Your task to perform on an android device: Open CNN.com Image 0: 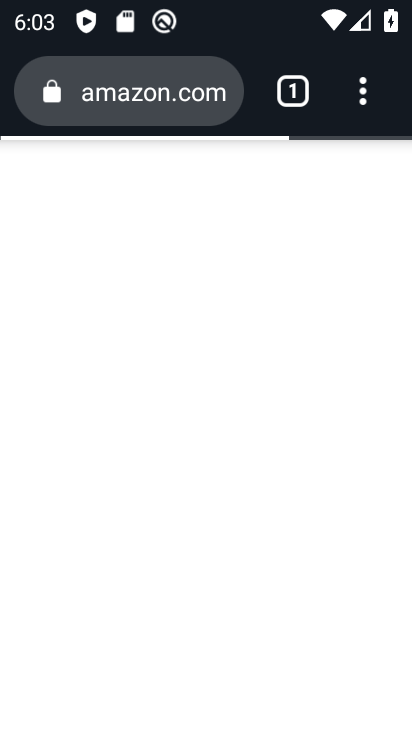
Step 0: press home button
Your task to perform on an android device: Open CNN.com Image 1: 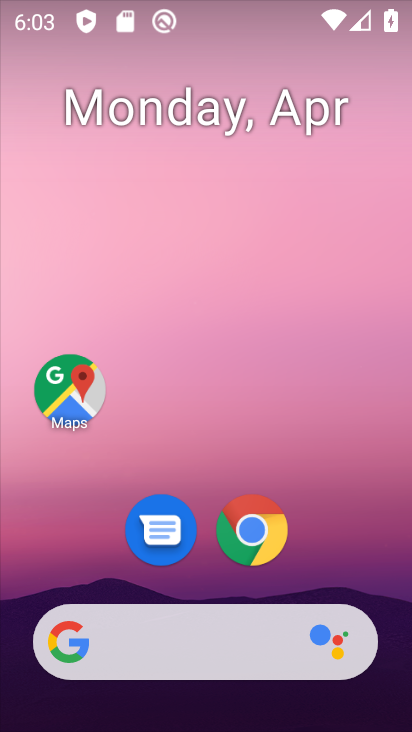
Step 1: click (254, 541)
Your task to perform on an android device: Open CNN.com Image 2: 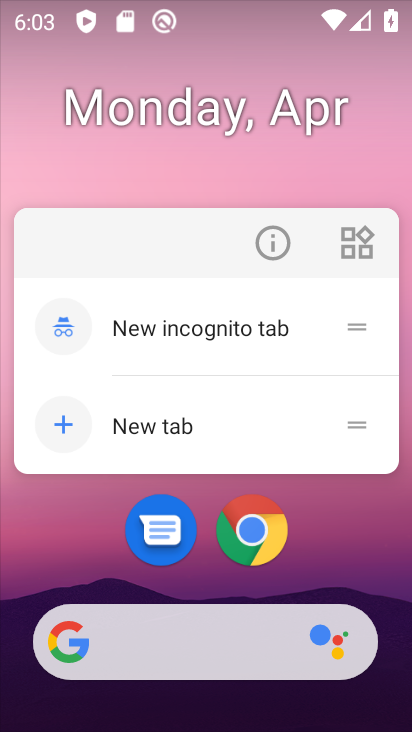
Step 2: click (356, 547)
Your task to perform on an android device: Open CNN.com Image 3: 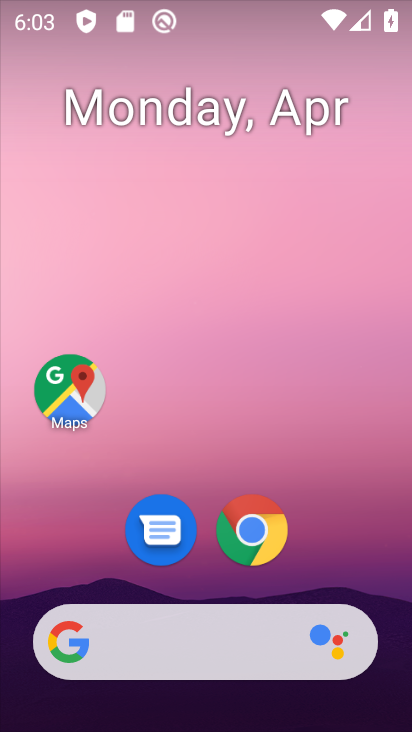
Step 3: drag from (224, 580) to (280, 32)
Your task to perform on an android device: Open CNN.com Image 4: 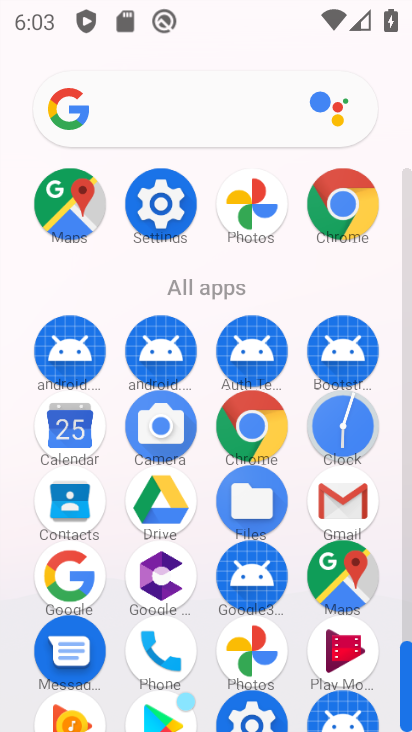
Step 4: click (246, 418)
Your task to perform on an android device: Open CNN.com Image 5: 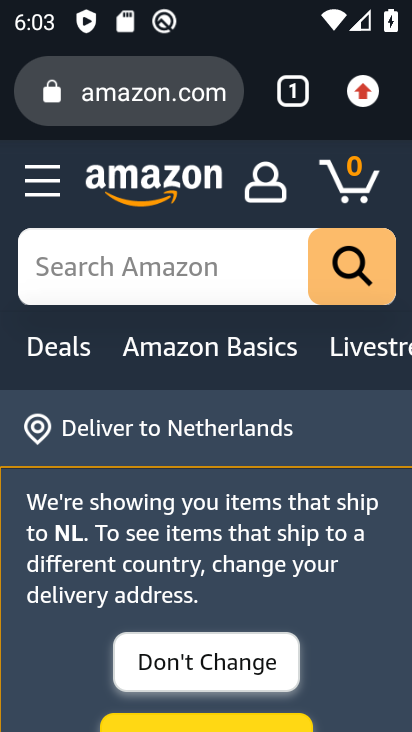
Step 5: click (292, 86)
Your task to perform on an android device: Open CNN.com Image 6: 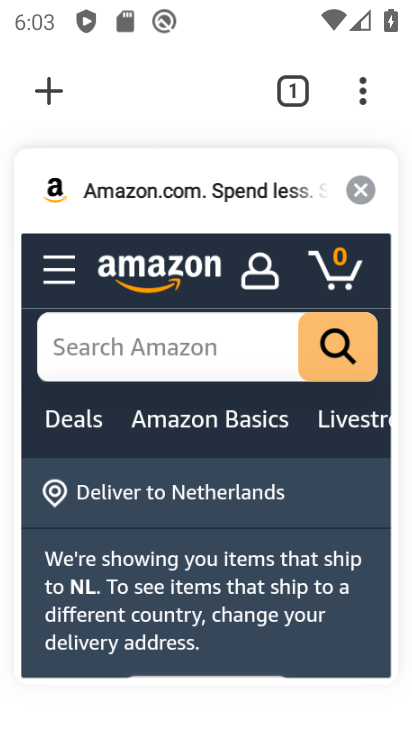
Step 6: click (365, 187)
Your task to perform on an android device: Open CNN.com Image 7: 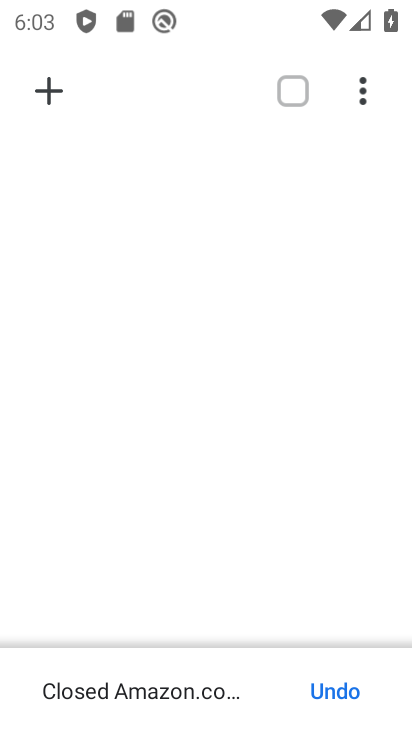
Step 7: click (59, 95)
Your task to perform on an android device: Open CNN.com Image 8: 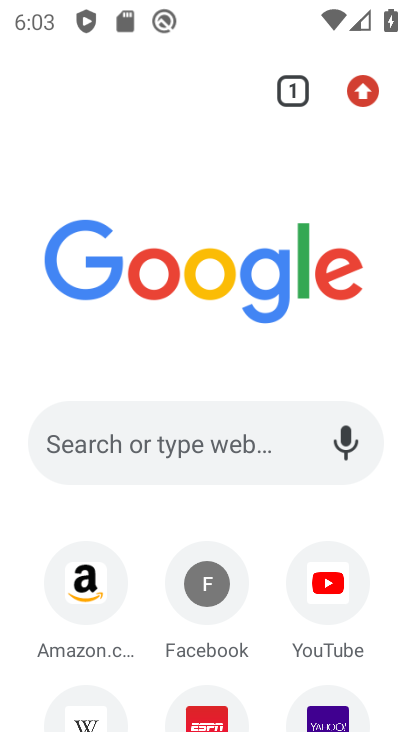
Step 8: click (180, 441)
Your task to perform on an android device: Open CNN.com Image 9: 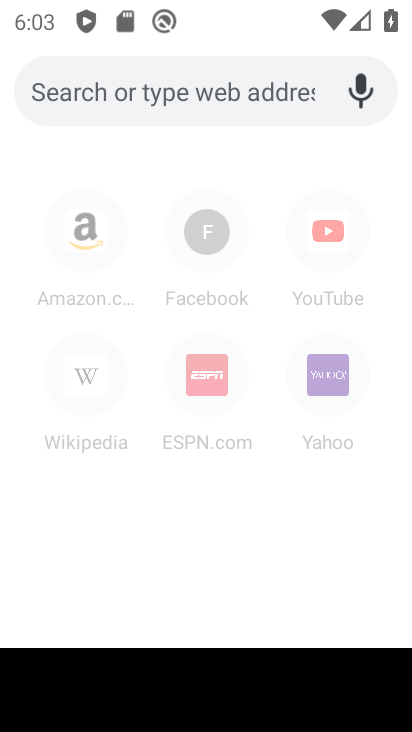
Step 9: type "cnn.com"
Your task to perform on an android device: Open CNN.com Image 10: 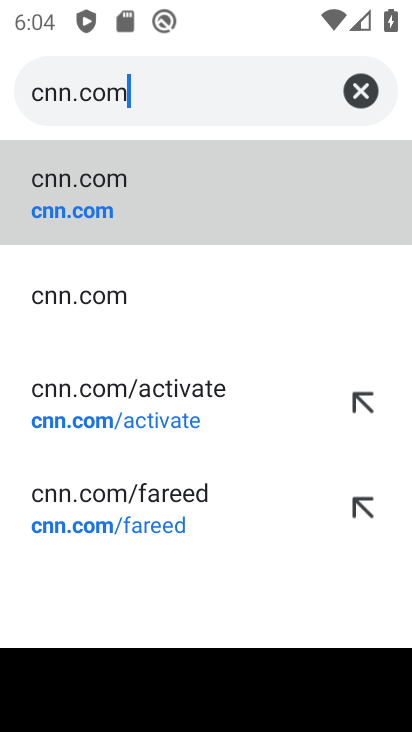
Step 10: click (125, 180)
Your task to perform on an android device: Open CNN.com Image 11: 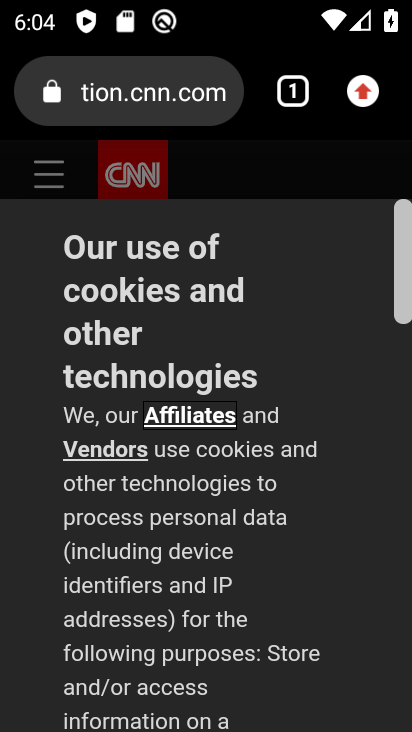
Step 11: drag from (257, 687) to (314, 239)
Your task to perform on an android device: Open CNN.com Image 12: 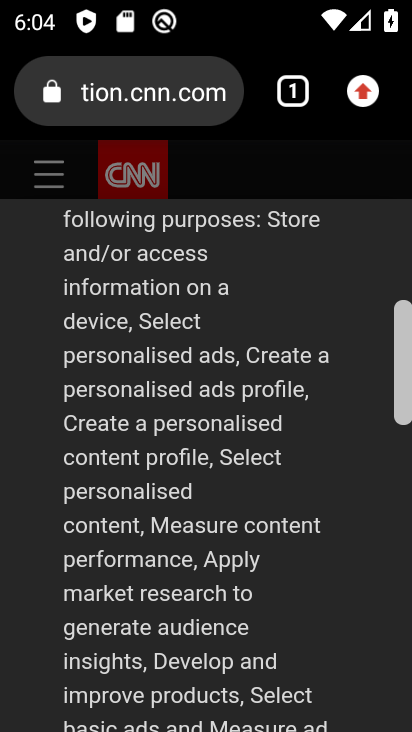
Step 12: drag from (238, 707) to (267, 272)
Your task to perform on an android device: Open CNN.com Image 13: 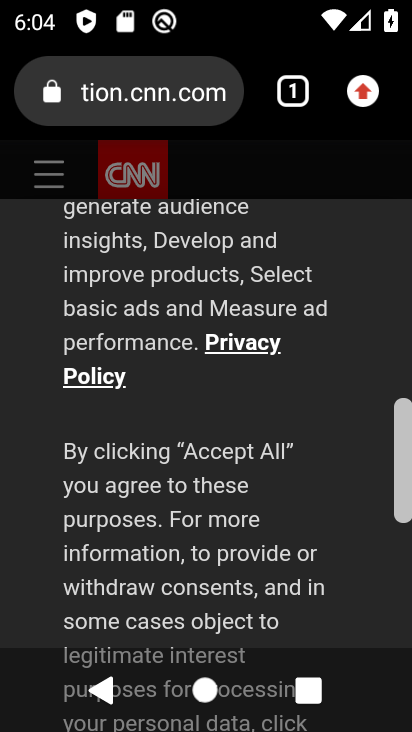
Step 13: drag from (230, 598) to (271, 140)
Your task to perform on an android device: Open CNN.com Image 14: 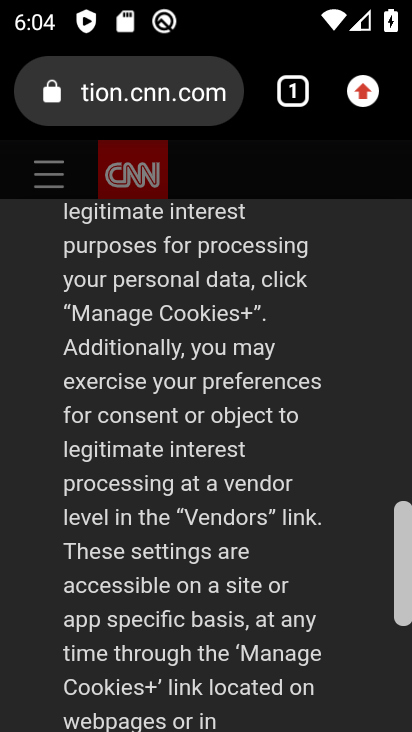
Step 14: drag from (231, 678) to (259, 134)
Your task to perform on an android device: Open CNN.com Image 15: 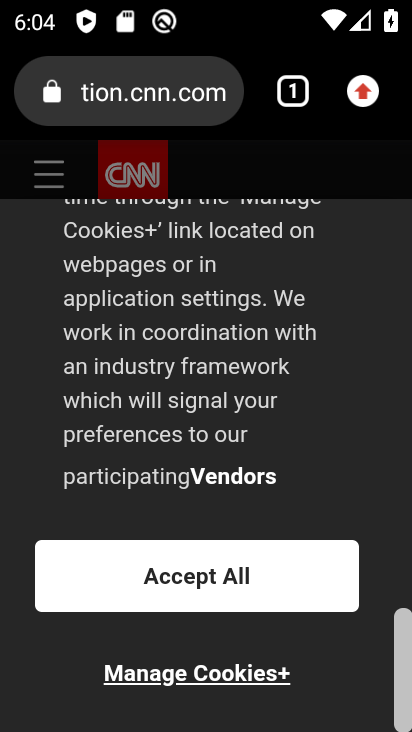
Step 15: click (193, 571)
Your task to perform on an android device: Open CNN.com Image 16: 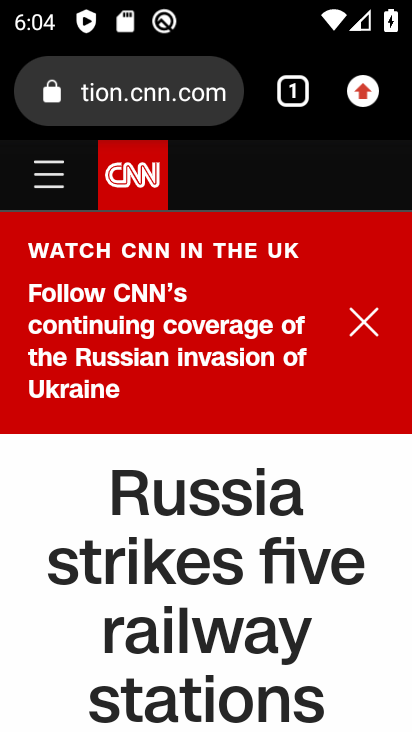
Step 16: task complete